Your task to perform on an android device: empty trash in the gmail app Image 0: 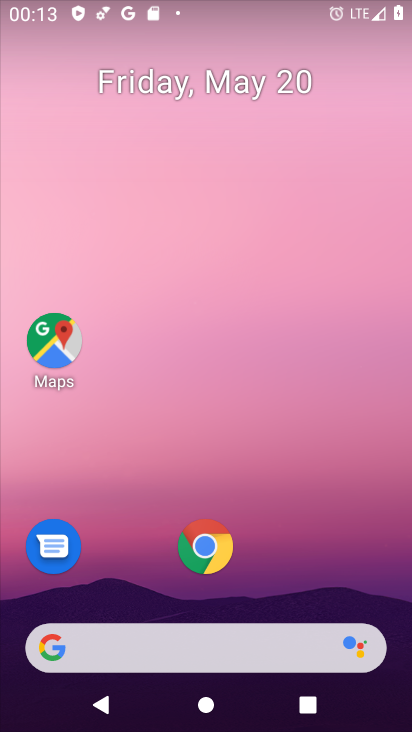
Step 0: drag from (307, 568) to (267, 138)
Your task to perform on an android device: empty trash in the gmail app Image 1: 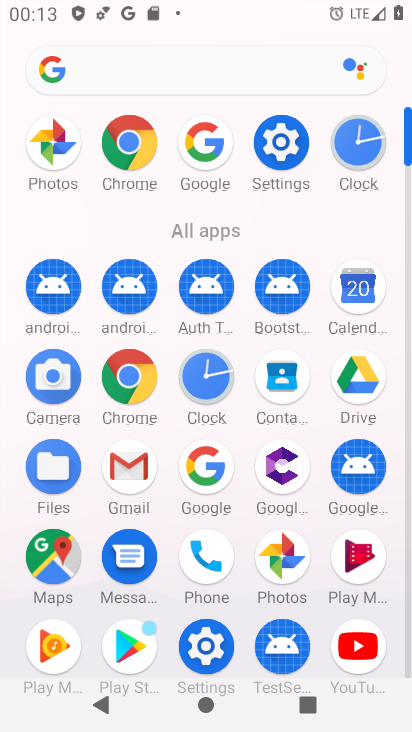
Step 1: click (125, 468)
Your task to perform on an android device: empty trash in the gmail app Image 2: 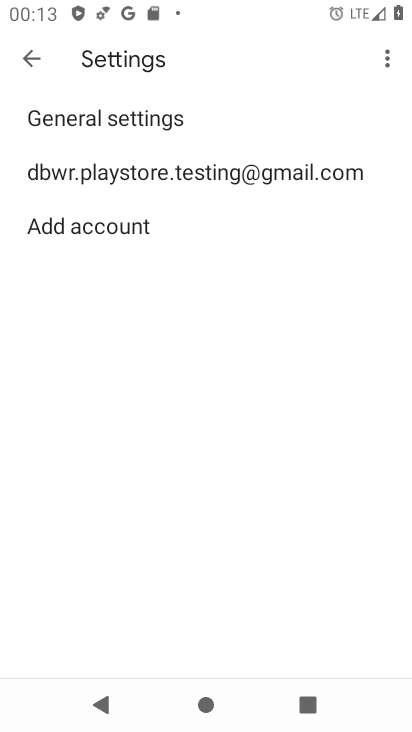
Step 2: click (199, 165)
Your task to perform on an android device: empty trash in the gmail app Image 3: 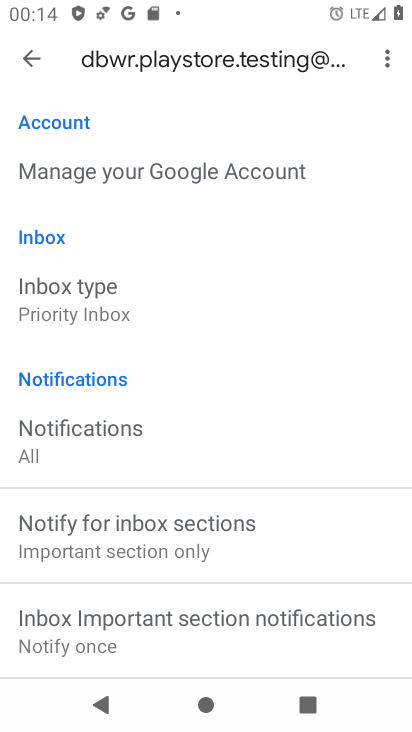
Step 3: click (35, 75)
Your task to perform on an android device: empty trash in the gmail app Image 4: 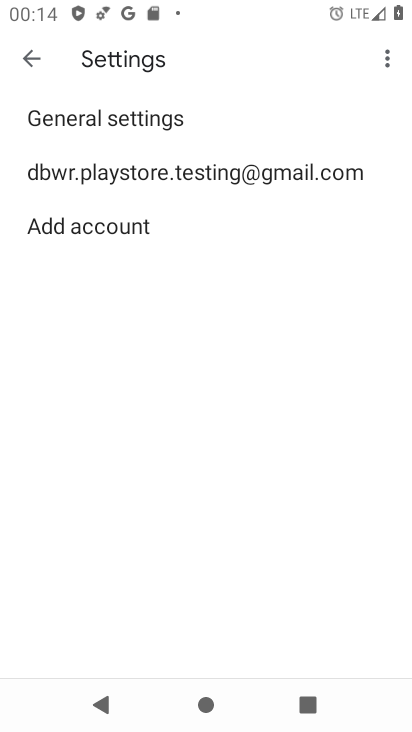
Step 4: click (35, 74)
Your task to perform on an android device: empty trash in the gmail app Image 5: 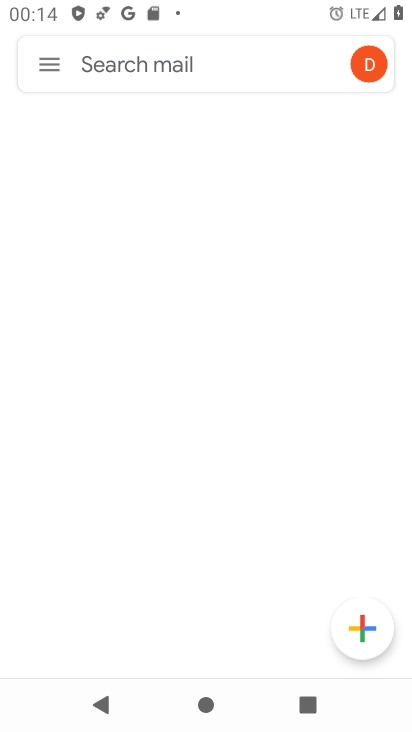
Step 5: click (41, 66)
Your task to perform on an android device: empty trash in the gmail app Image 6: 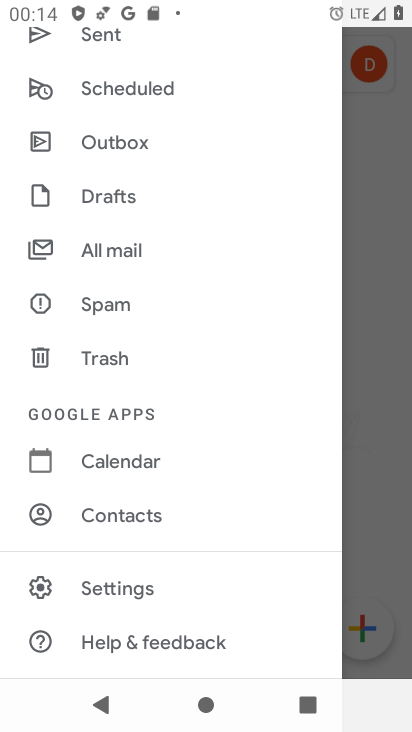
Step 6: drag from (144, 166) to (140, 330)
Your task to perform on an android device: empty trash in the gmail app Image 7: 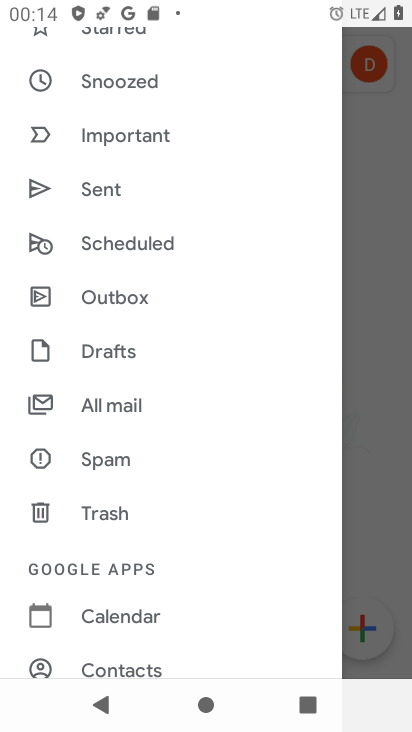
Step 7: click (112, 497)
Your task to perform on an android device: empty trash in the gmail app Image 8: 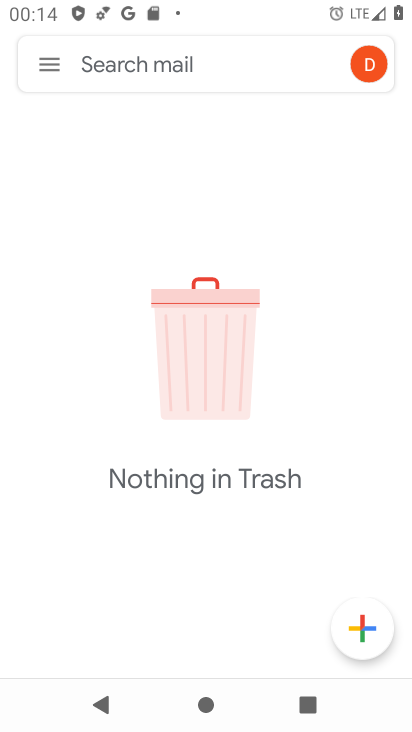
Step 8: task complete